Your task to perform on an android device: Search for "The Dispatcher" by John Scalzi on Goodreads Image 0: 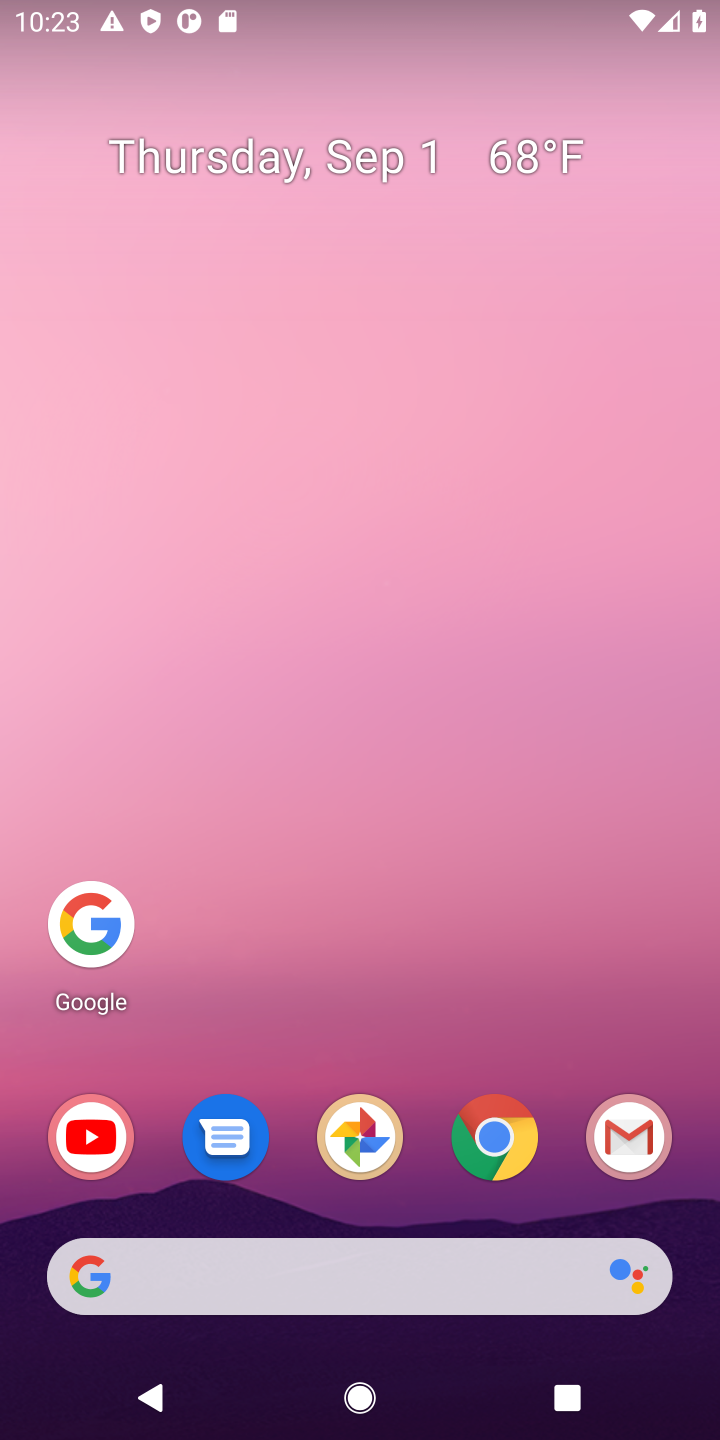
Step 0: click (89, 924)
Your task to perform on an android device: Search for "The Dispatcher" by John Scalzi on Goodreads Image 1: 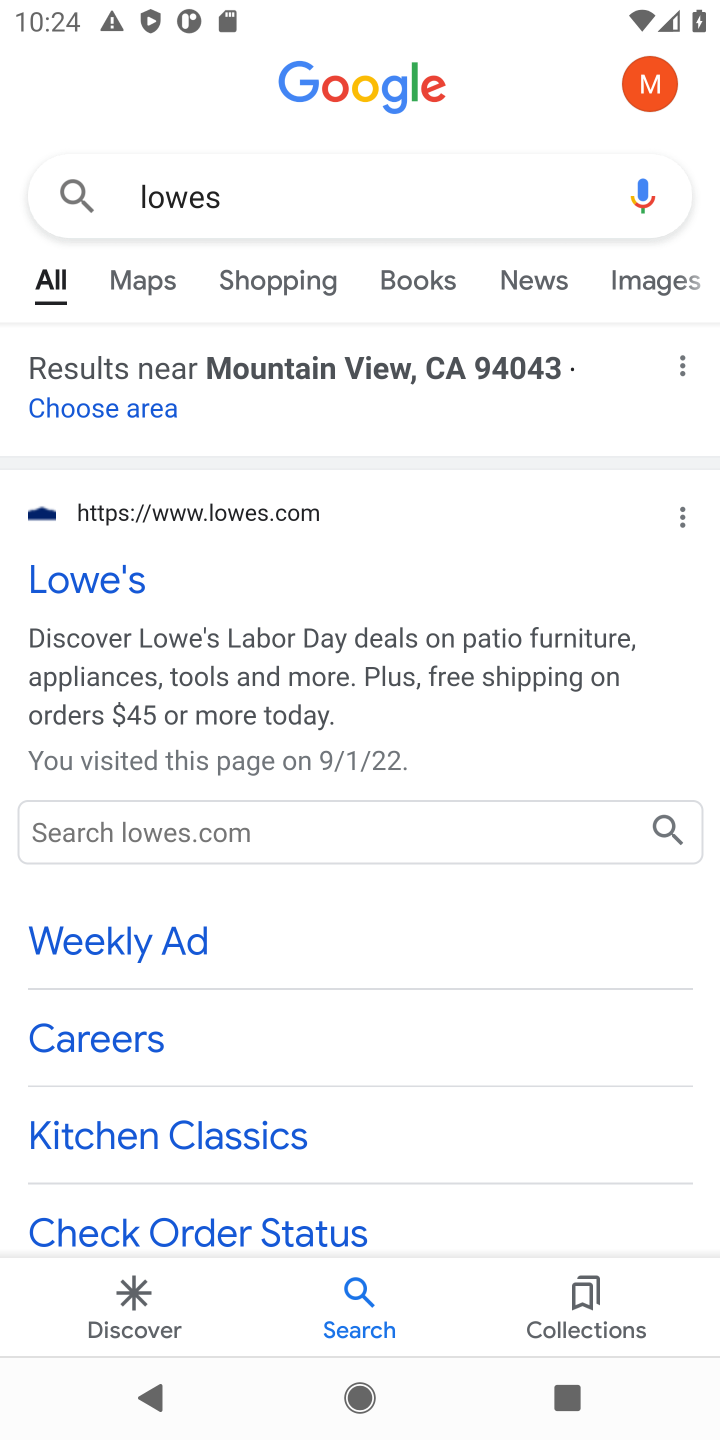
Step 1: click (313, 166)
Your task to perform on an android device: Search for "The Dispatcher" by John Scalzi on Goodreads Image 2: 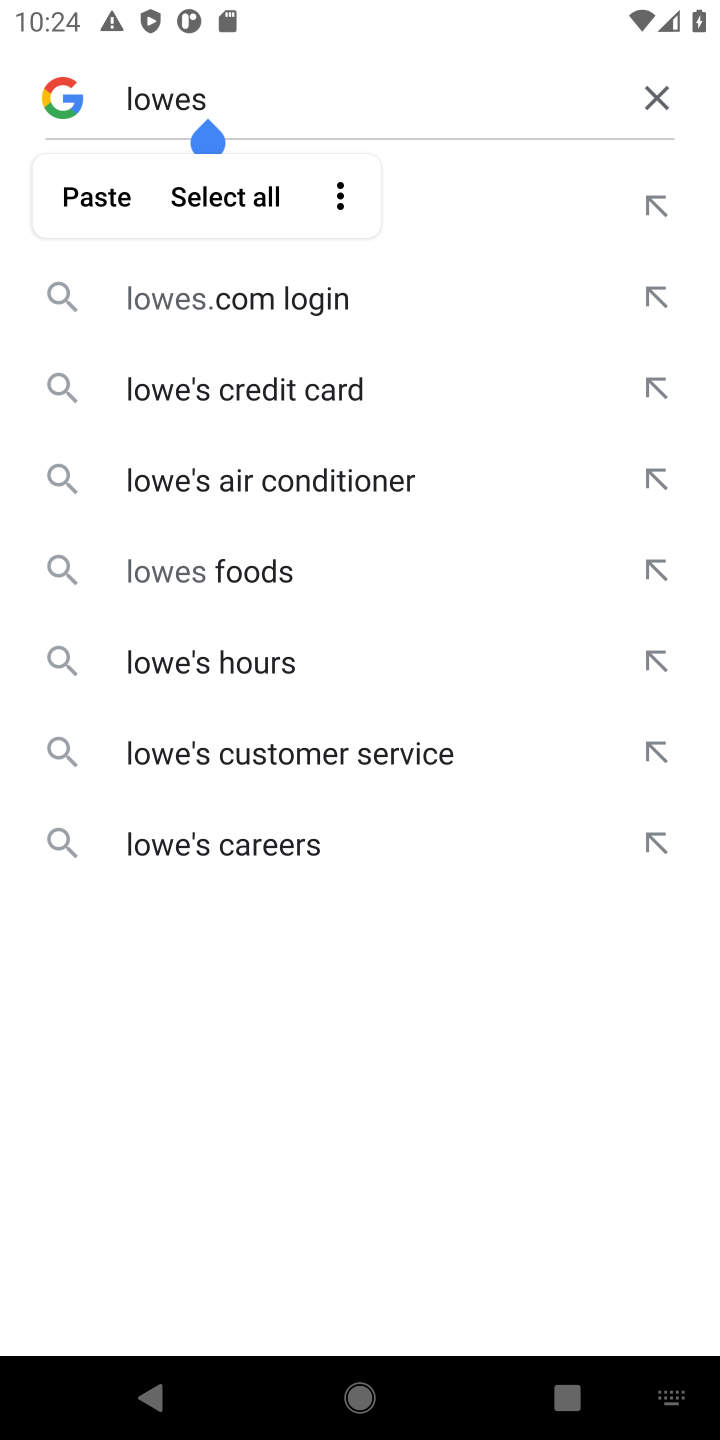
Step 2: click (663, 86)
Your task to perform on an android device: Search for "The Dispatcher" by John Scalzi on Goodreads Image 3: 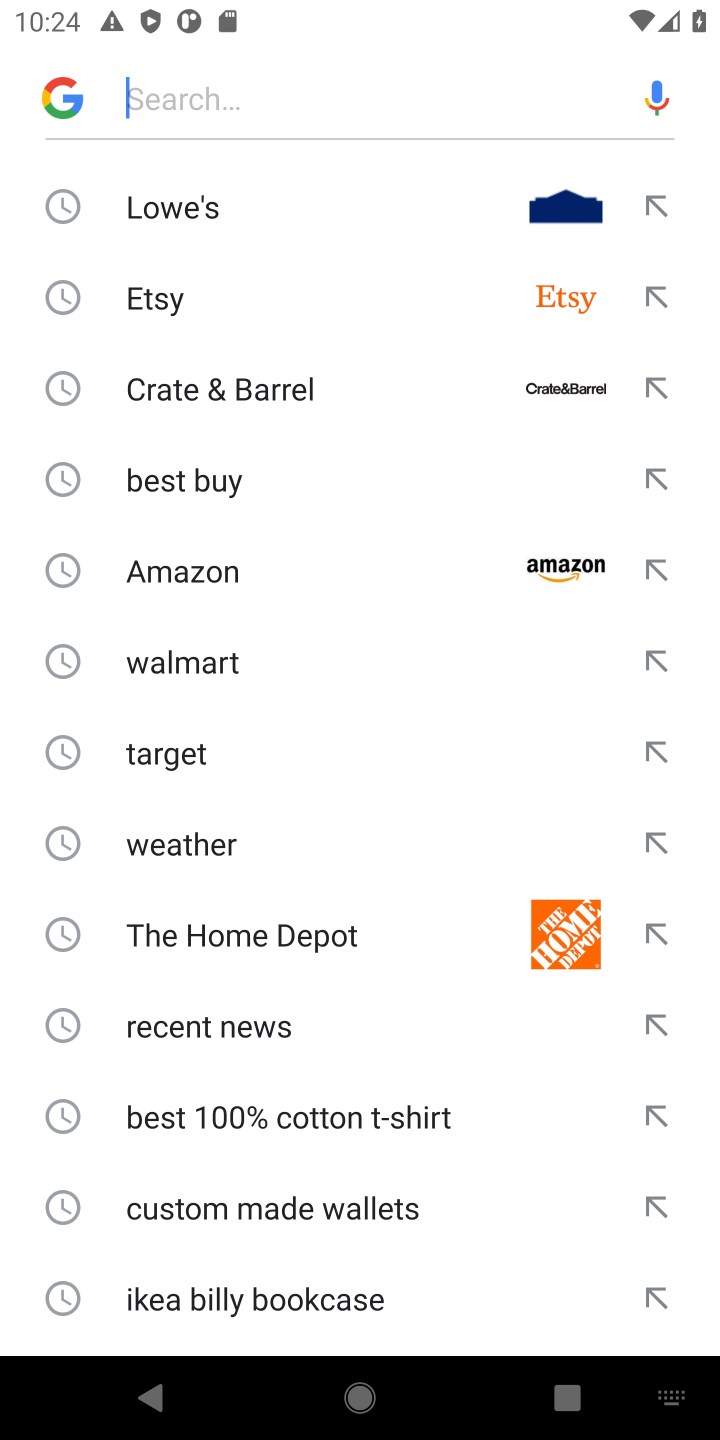
Step 3: type "goodreads"
Your task to perform on an android device: Search for "The Dispatcher" by John Scalzi on Goodreads Image 4: 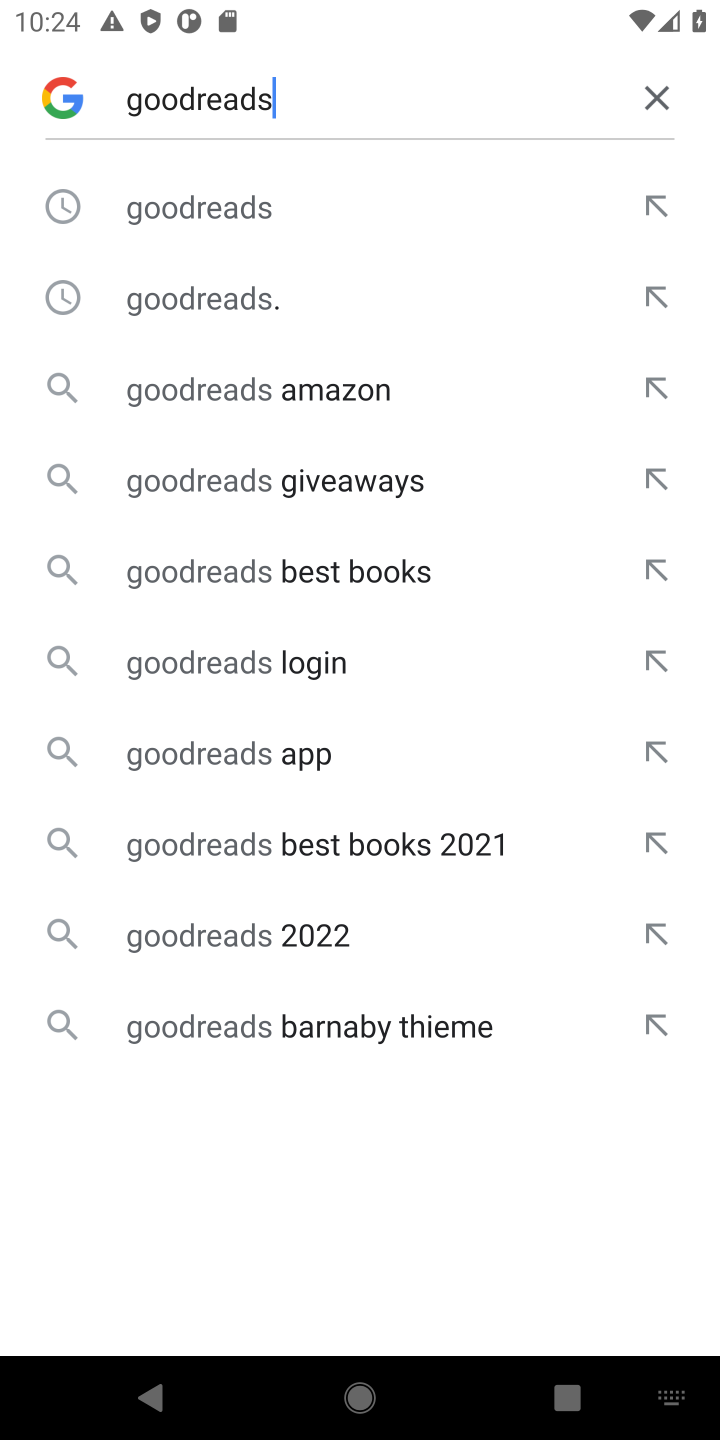
Step 4: click (222, 210)
Your task to perform on an android device: Search for "The Dispatcher" by John Scalzi on Goodreads Image 5: 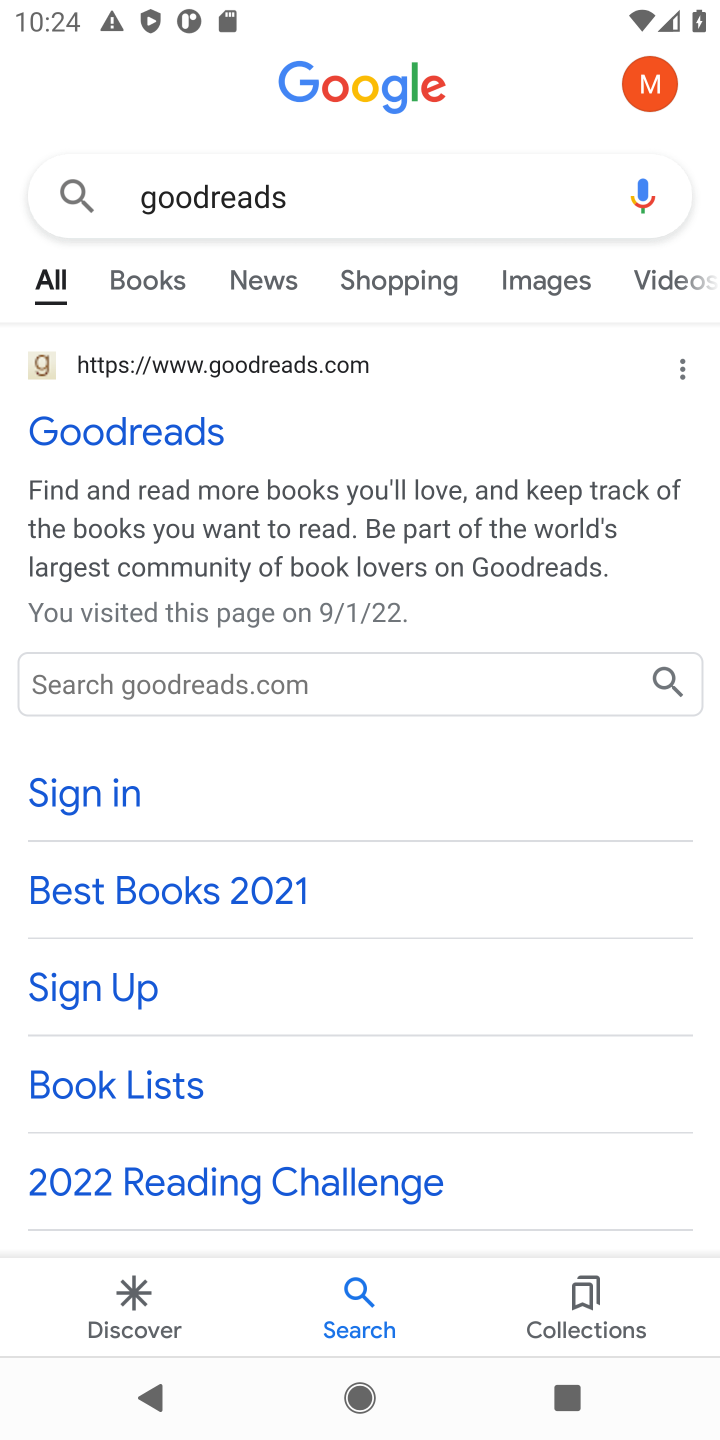
Step 5: click (116, 426)
Your task to perform on an android device: Search for "The Dispatcher" by John Scalzi on Goodreads Image 6: 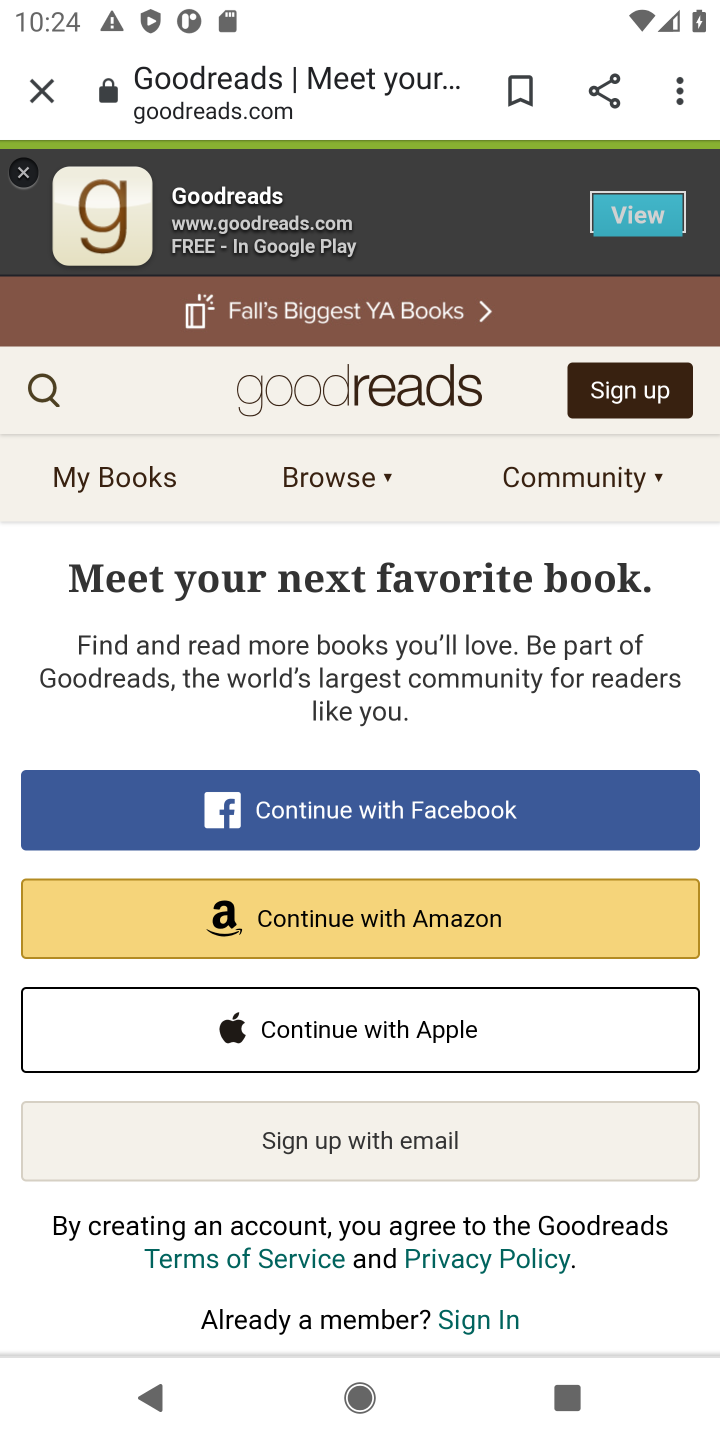
Step 6: click (36, 387)
Your task to perform on an android device: Search for "The Dispatcher" by John Scalzi on Goodreads Image 7: 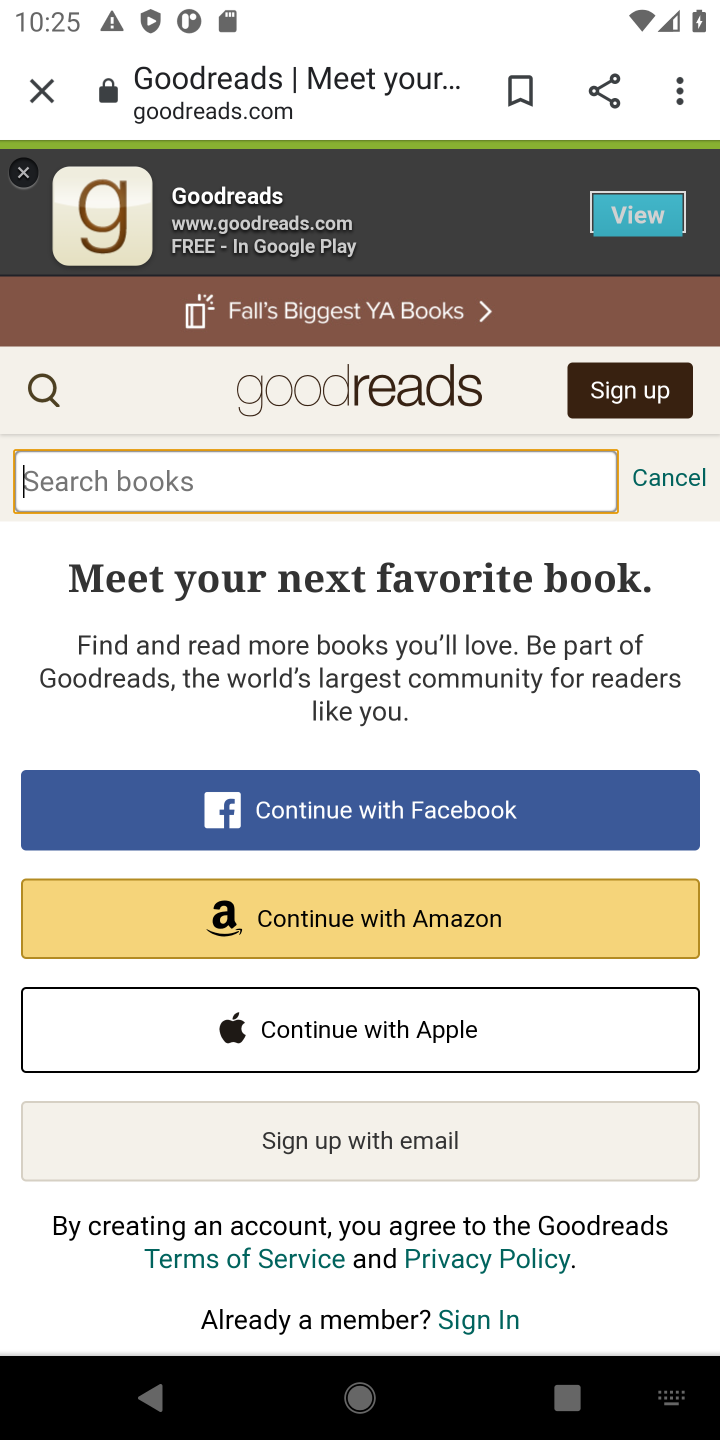
Step 7: type "The Dispatcher"
Your task to perform on an android device: Search for "The Dispatcher" by John Scalzi on Goodreads Image 8: 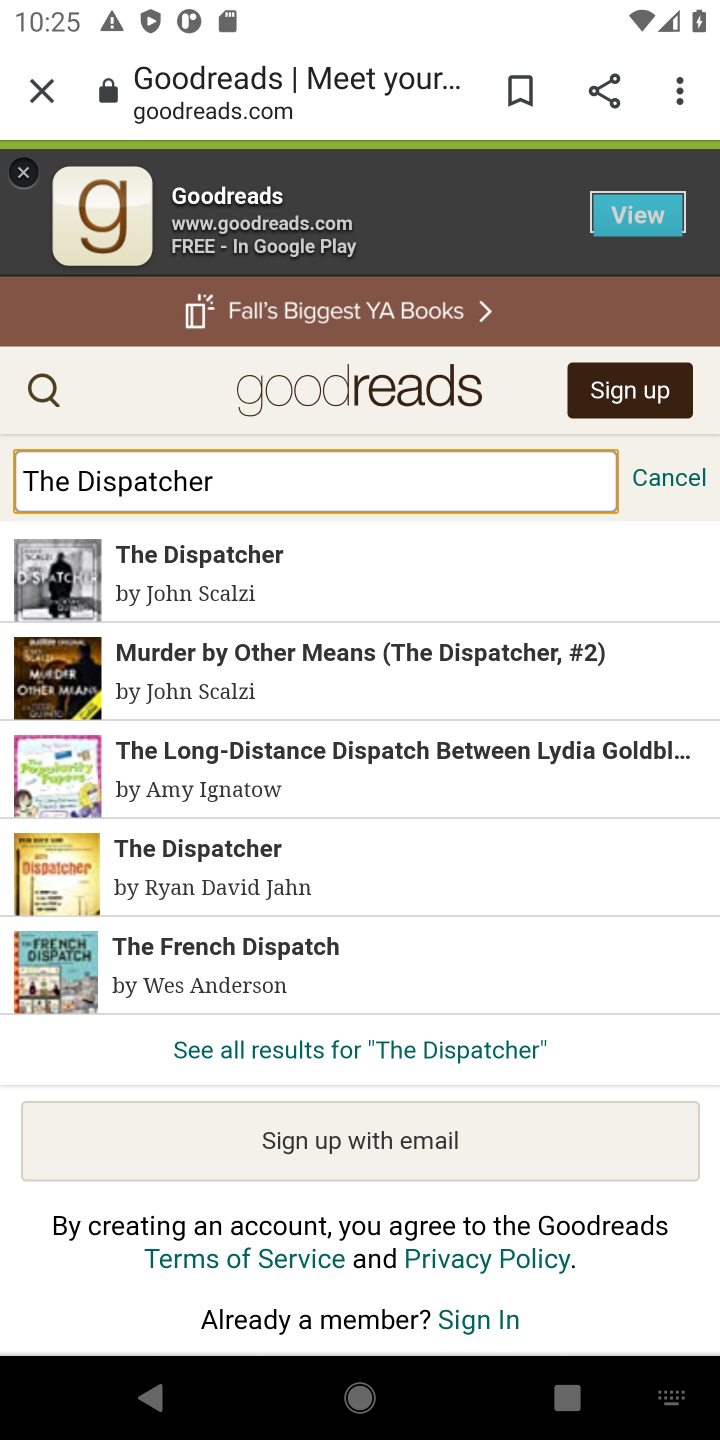
Step 8: type ""
Your task to perform on an android device: Search for "The Dispatcher" by John Scalzi on Goodreads Image 9: 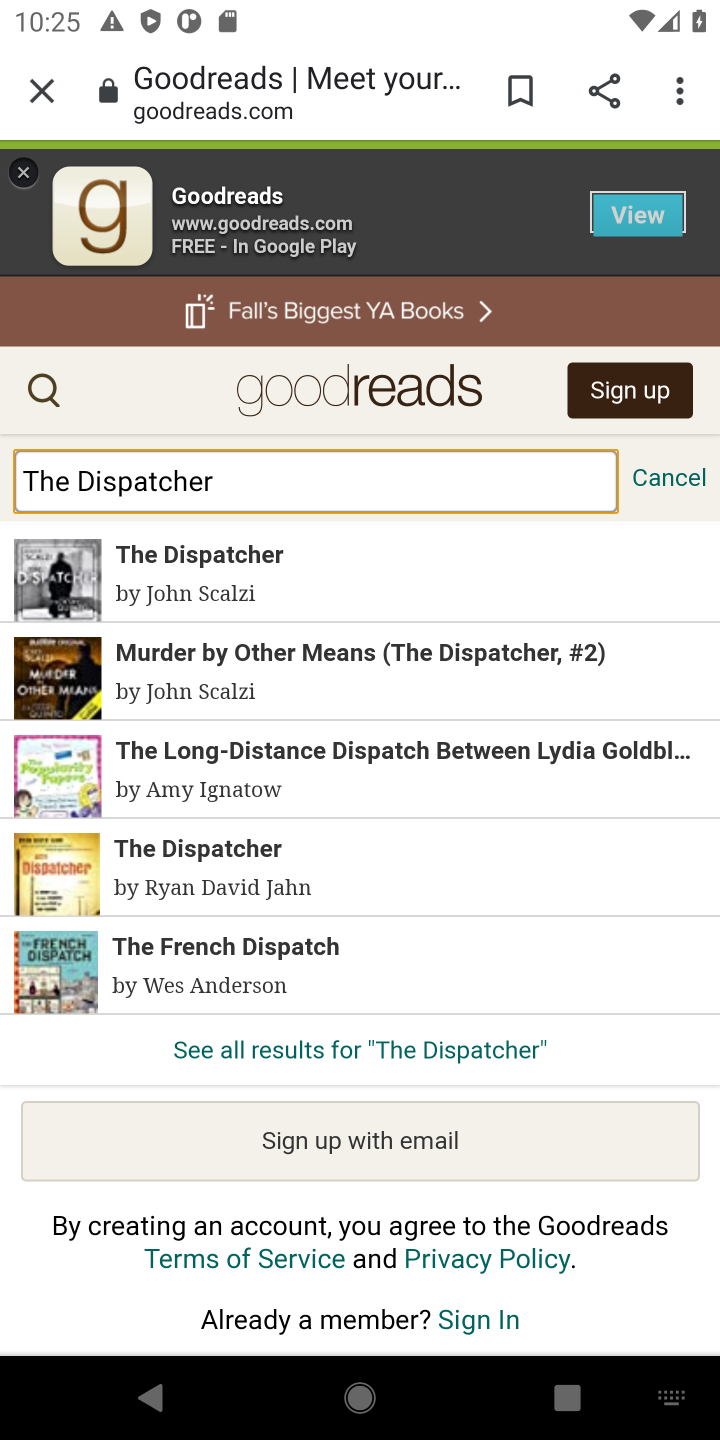
Step 9: type " by john scalzi"
Your task to perform on an android device: Search for "The Dispatcher" by John Scalzi on Goodreads Image 10: 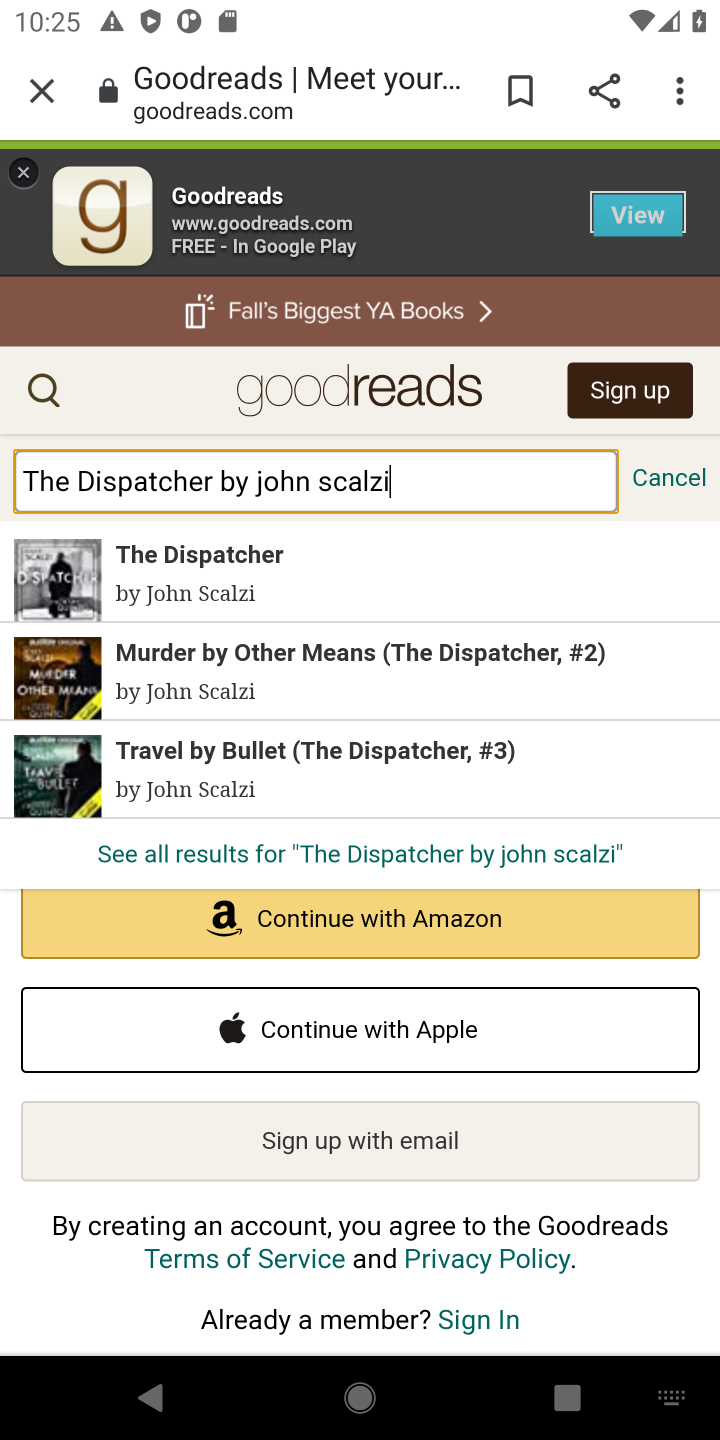
Step 10: click (487, 472)
Your task to perform on an android device: Search for "The Dispatcher" by John Scalzi on Goodreads Image 11: 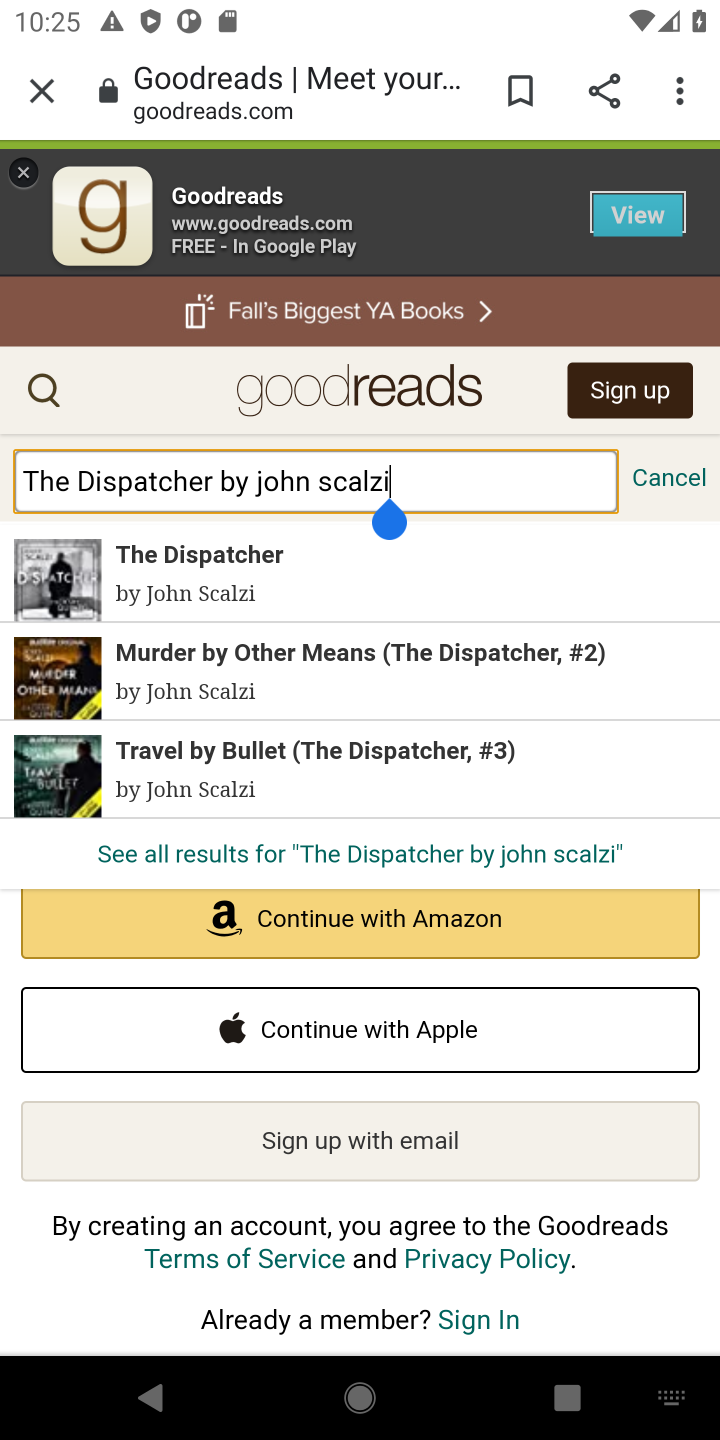
Step 11: click (47, 388)
Your task to perform on an android device: Search for "The Dispatcher" by John Scalzi on Goodreads Image 12: 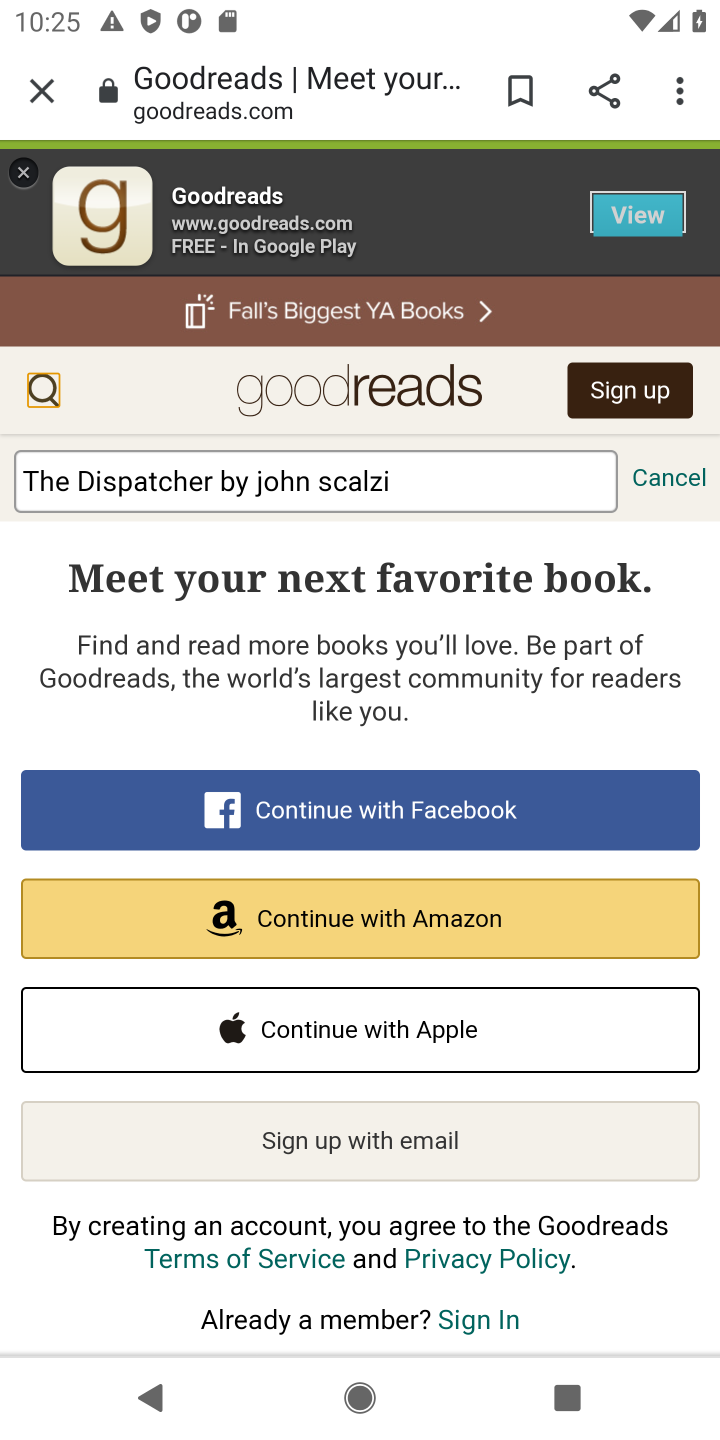
Step 12: click (438, 476)
Your task to perform on an android device: Search for "The Dispatcher" by John Scalzi on Goodreads Image 13: 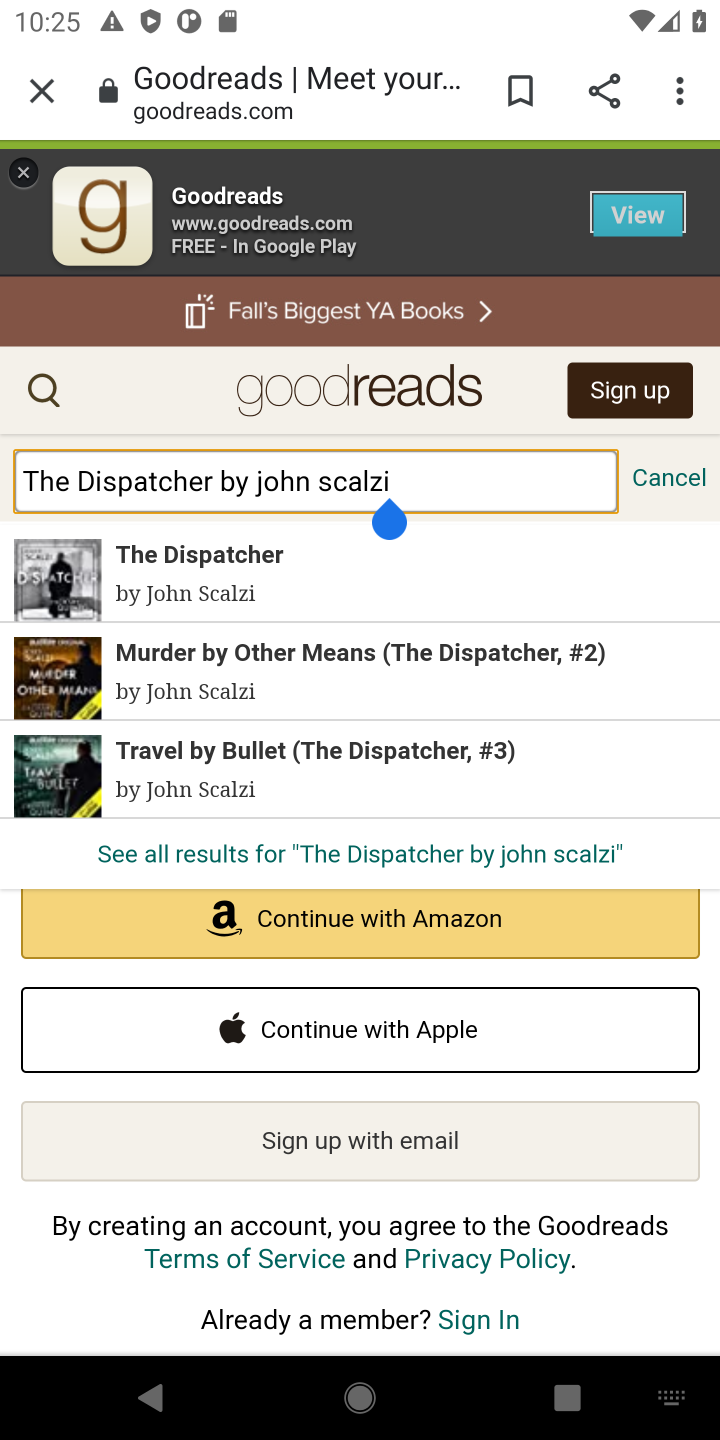
Step 13: click (188, 564)
Your task to perform on an android device: Search for "The Dispatcher" by John Scalzi on Goodreads Image 14: 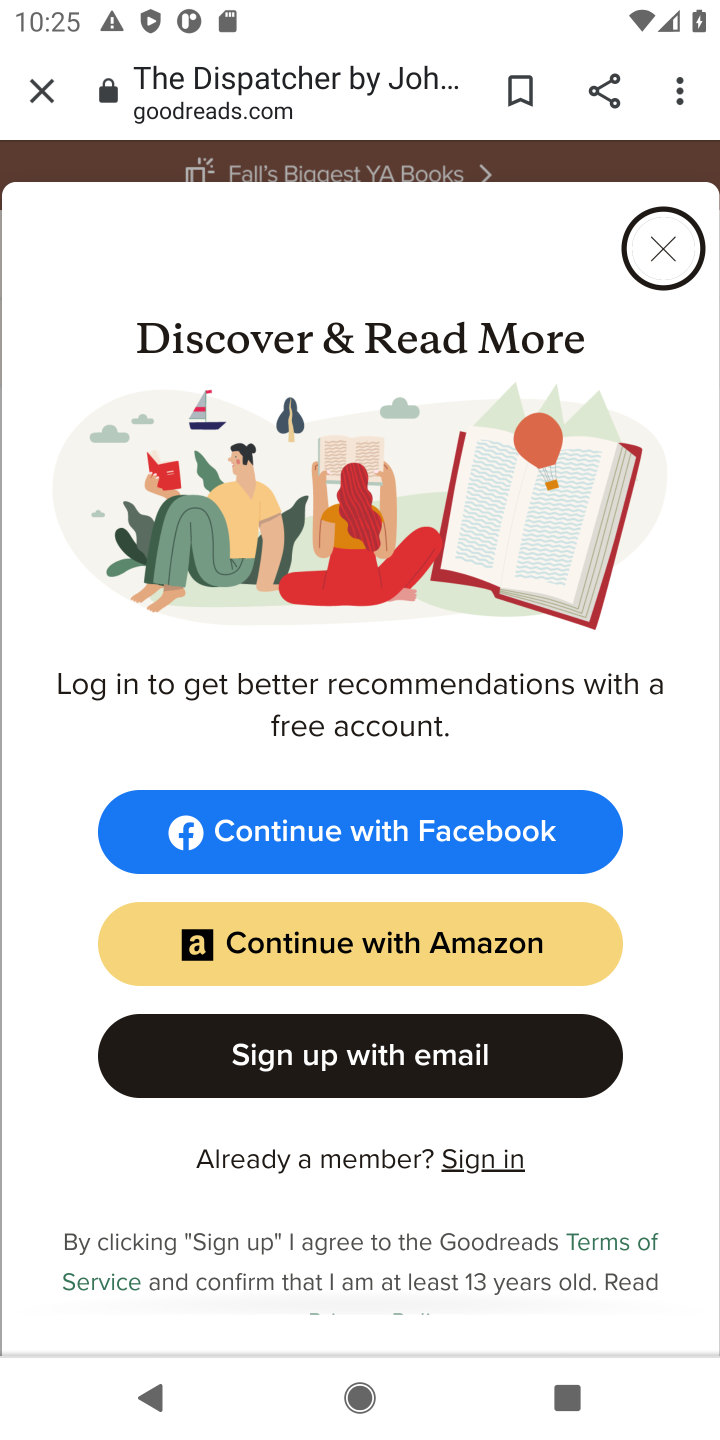
Step 14: click (666, 240)
Your task to perform on an android device: Search for "The Dispatcher" by John Scalzi on Goodreads Image 15: 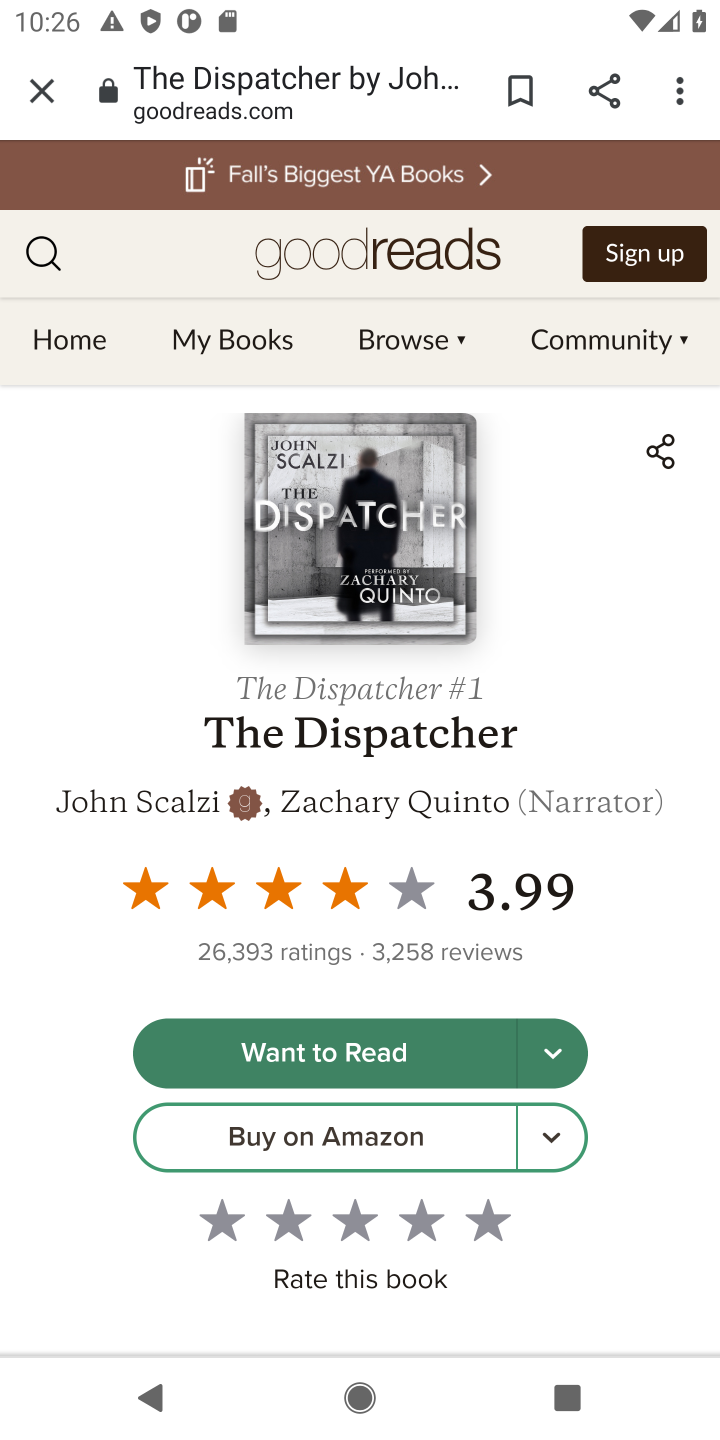
Step 15: task complete